Your task to perform on an android device: turn smart compose on in the gmail app Image 0: 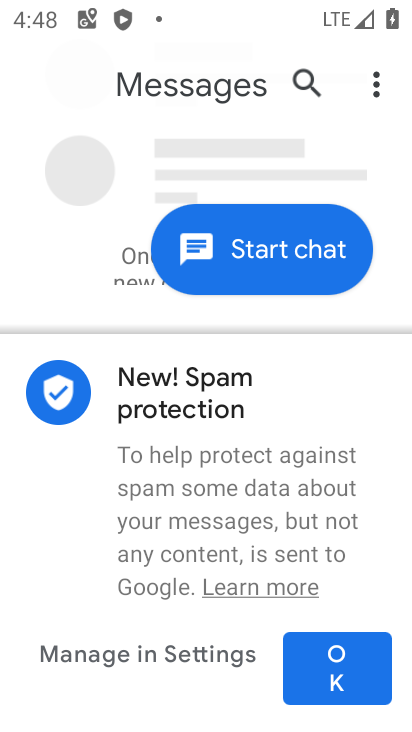
Step 0: press home button
Your task to perform on an android device: turn smart compose on in the gmail app Image 1: 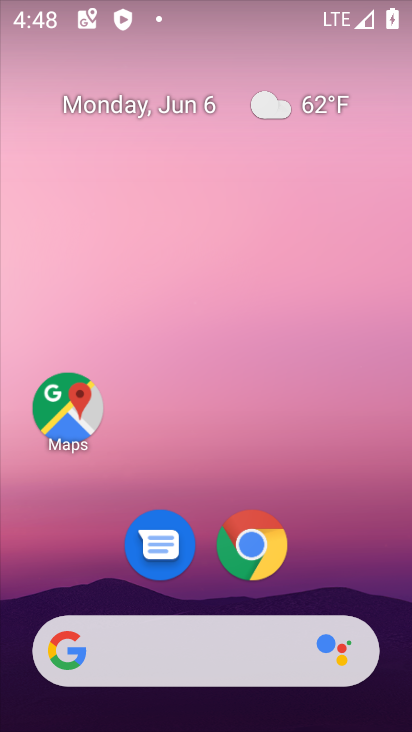
Step 1: drag from (217, 725) to (217, 77)
Your task to perform on an android device: turn smart compose on in the gmail app Image 2: 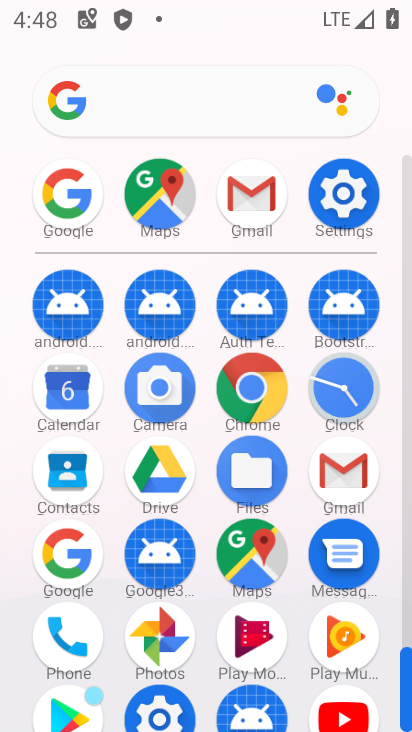
Step 2: click (340, 473)
Your task to perform on an android device: turn smart compose on in the gmail app Image 3: 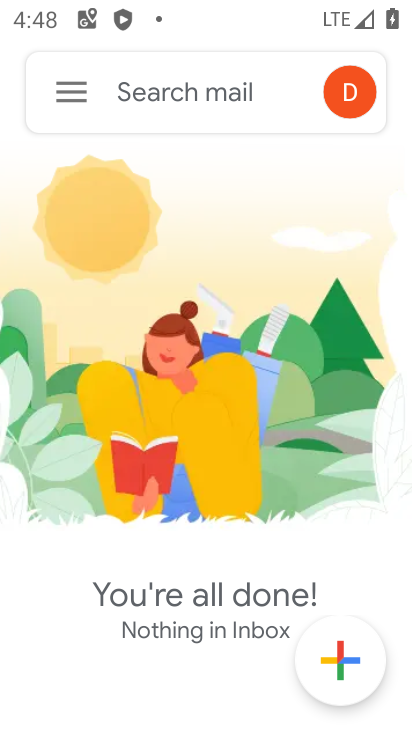
Step 3: click (62, 92)
Your task to perform on an android device: turn smart compose on in the gmail app Image 4: 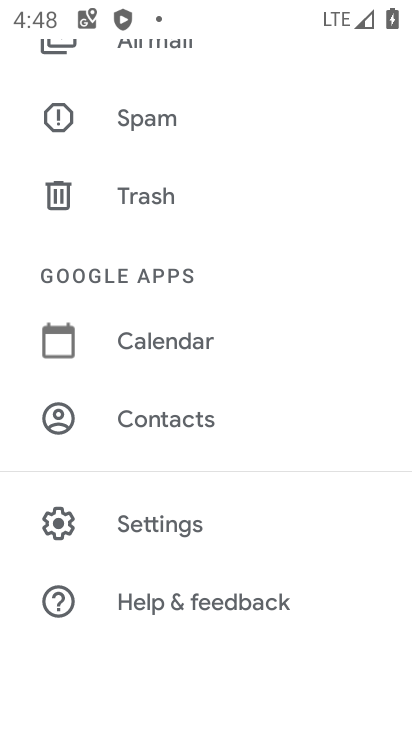
Step 4: click (159, 527)
Your task to perform on an android device: turn smart compose on in the gmail app Image 5: 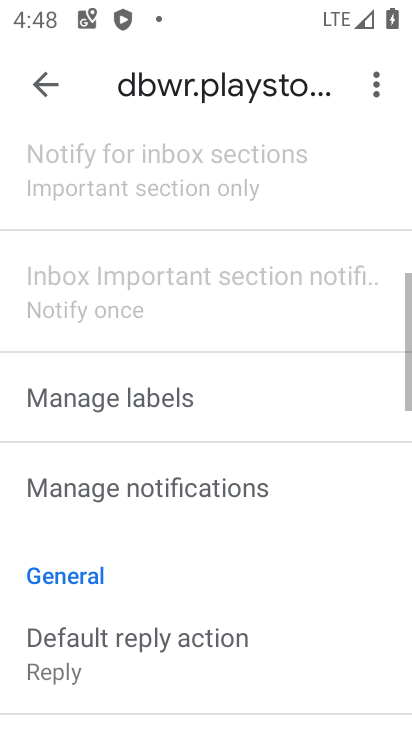
Step 5: task complete